Your task to perform on an android device: Open Maps and search for coffee Image 0: 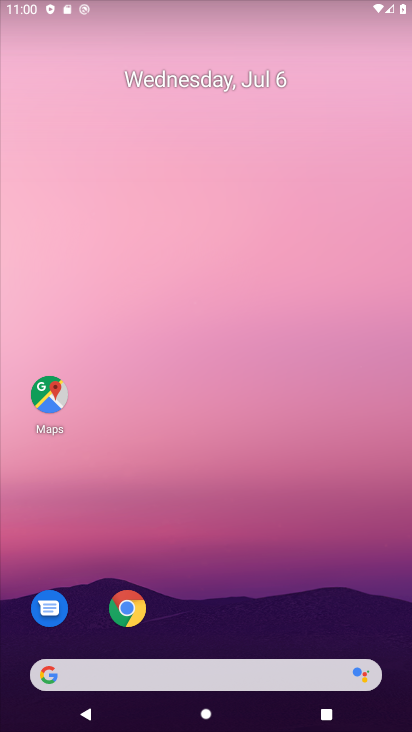
Step 0: drag from (202, 645) to (245, 118)
Your task to perform on an android device: Open Maps and search for coffee Image 1: 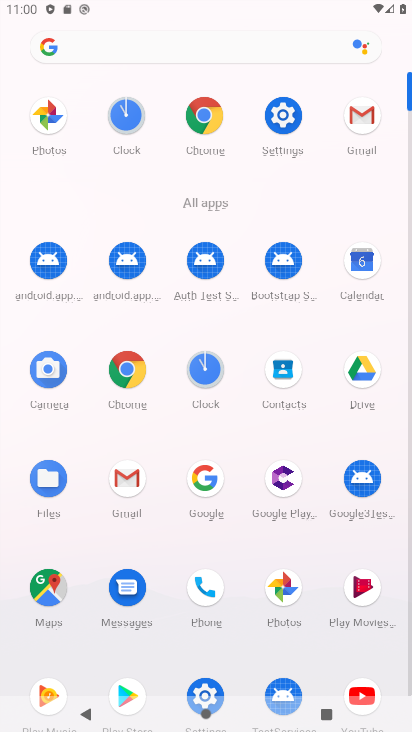
Step 1: click (50, 576)
Your task to perform on an android device: Open Maps and search for coffee Image 2: 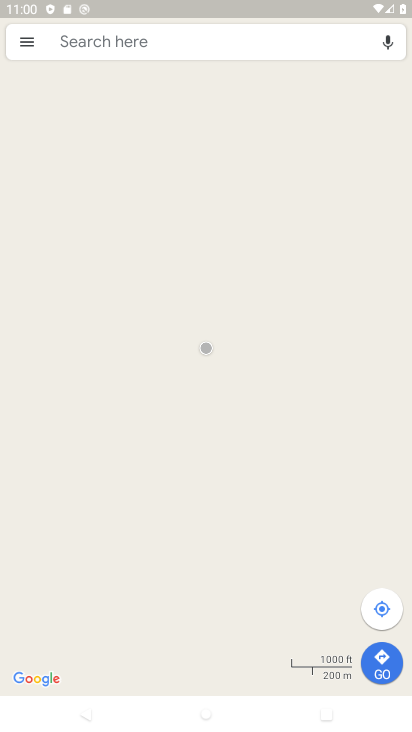
Step 2: click (172, 39)
Your task to perform on an android device: Open Maps and search for coffee Image 3: 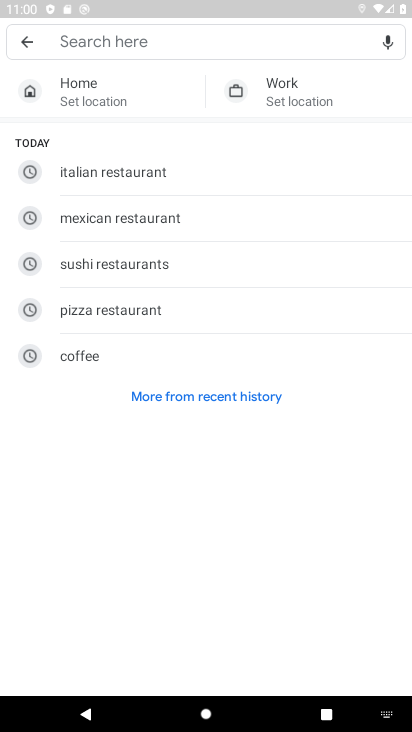
Step 3: type "coffee"
Your task to perform on an android device: Open Maps and search for coffee Image 4: 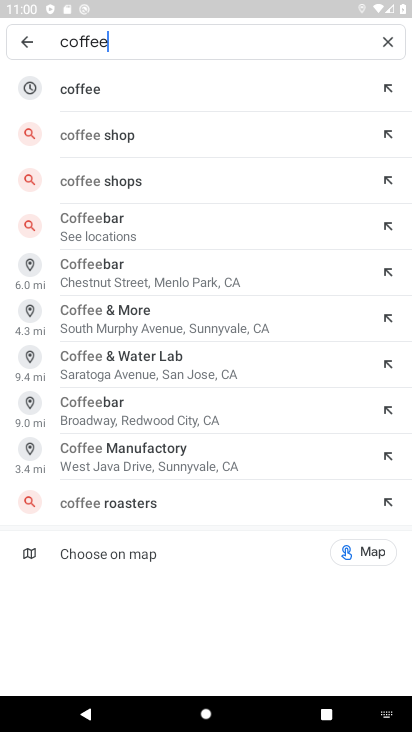
Step 4: click (220, 96)
Your task to perform on an android device: Open Maps and search for coffee Image 5: 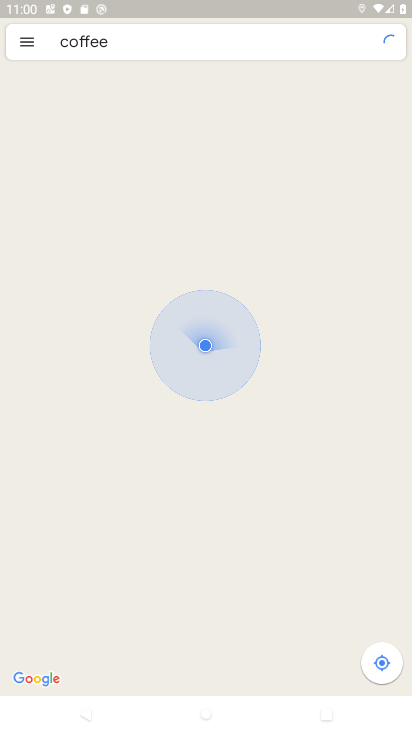
Step 5: task complete